Your task to perform on an android device: check storage Image 0: 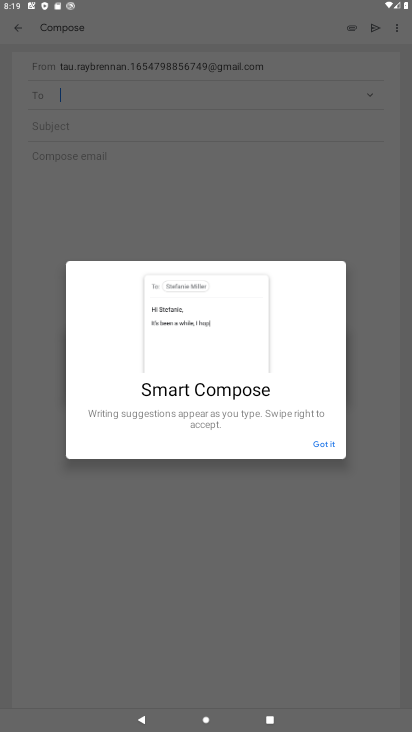
Step 0: press home button
Your task to perform on an android device: check storage Image 1: 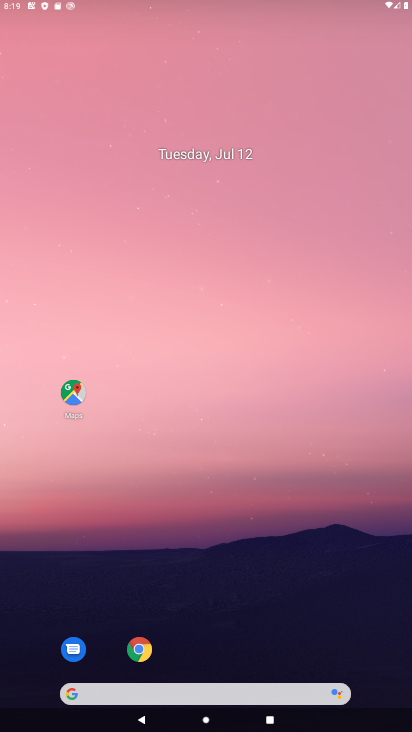
Step 1: drag from (235, 663) to (281, 98)
Your task to perform on an android device: check storage Image 2: 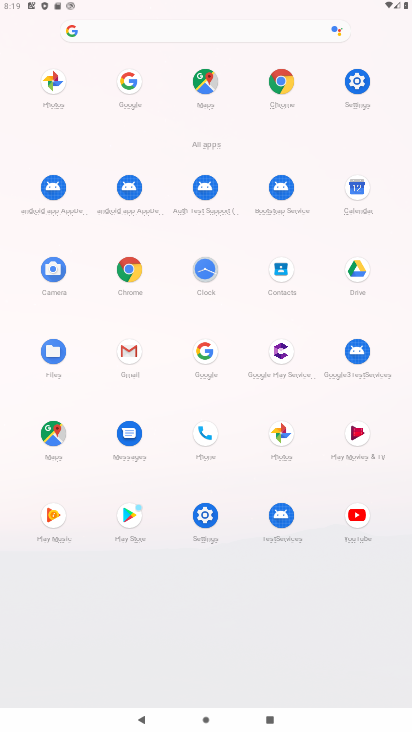
Step 2: click (202, 516)
Your task to perform on an android device: check storage Image 3: 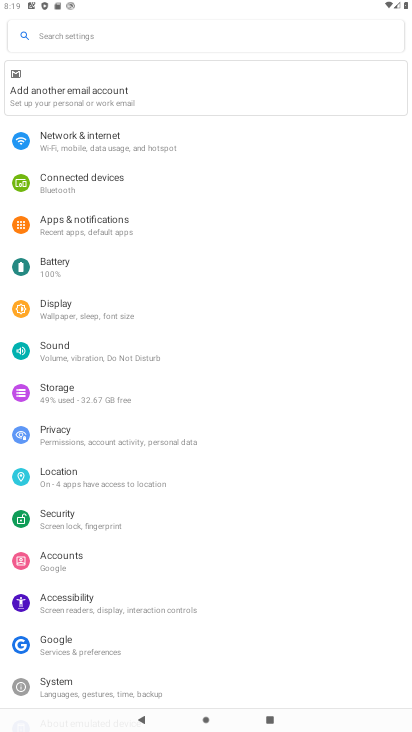
Step 3: click (76, 387)
Your task to perform on an android device: check storage Image 4: 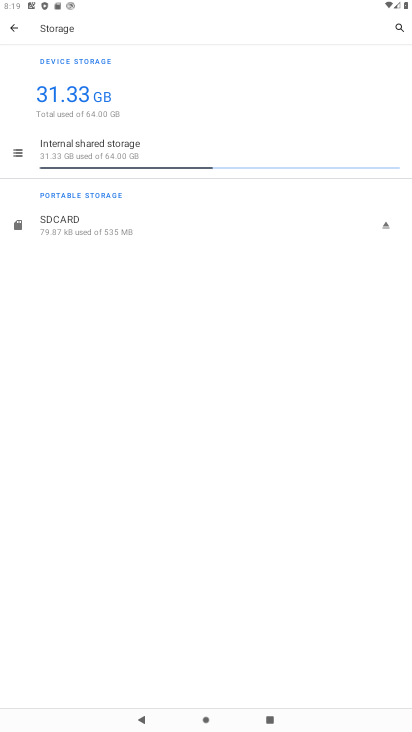
Step 4: task complete